Your task to perform on an android device: change keyboard looks Image 0: 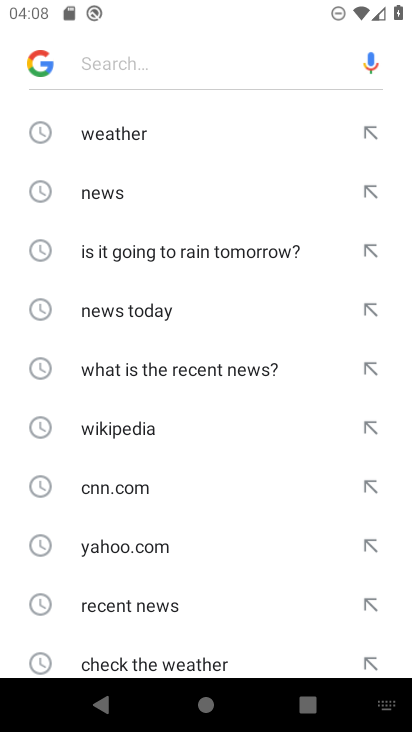
Step 0: press home button
Your task to perform on an android device: change keyboard looks Image 1: 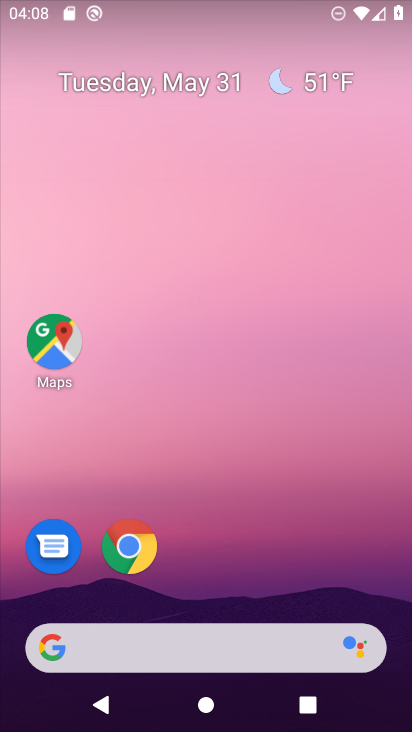
Step 1: drag from (191, 601) to (202, 168)
Your task to perform on an android device: change keyboard looks Image 2: 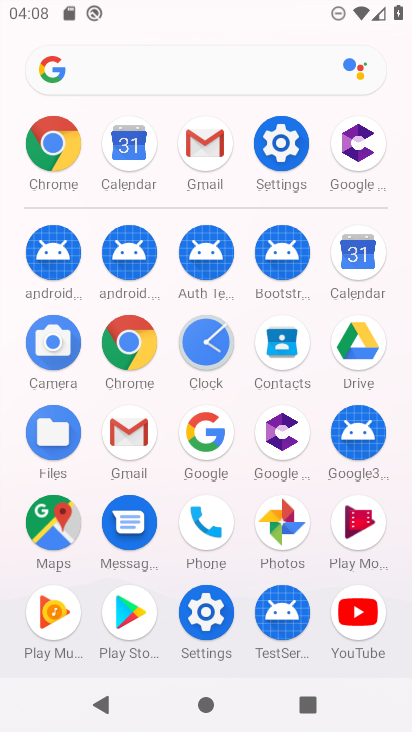
Step 2: click (279, 149)
Your task to perform on an android device: change keyboard looks Image 3: 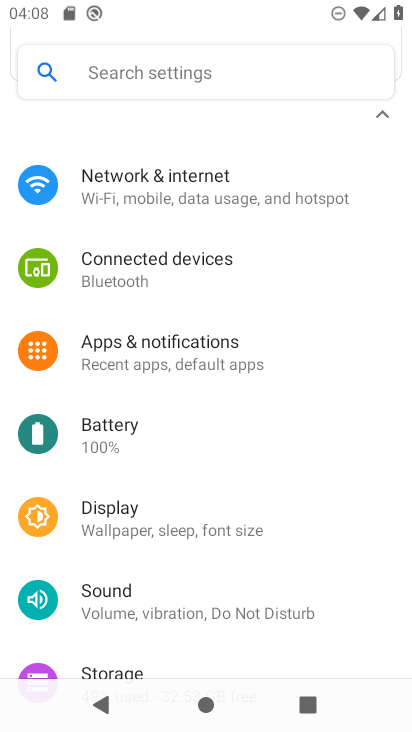
Step 3: drag from (145, 620) to (141, 301)
Your task to perform on an android device: change keyboard looks Image 4: 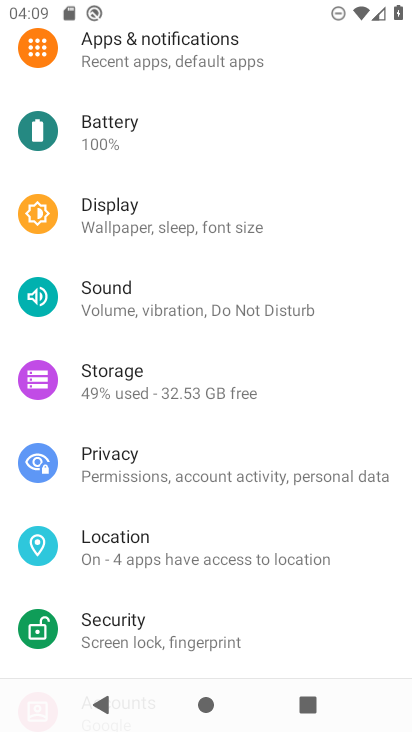
Step 4: drag from (165, 598) to (233, 240)
Your task to perform on an android device: change keyboard looks Image 5: 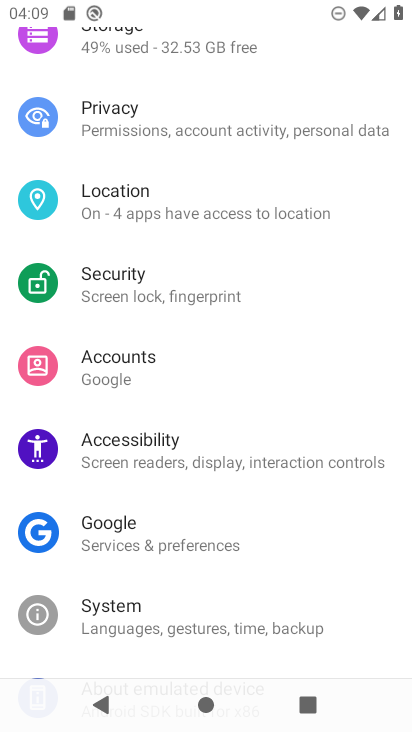
Step 5: click (139, 617)
Your task to perform on an android device: change keyboard looks Image 6: 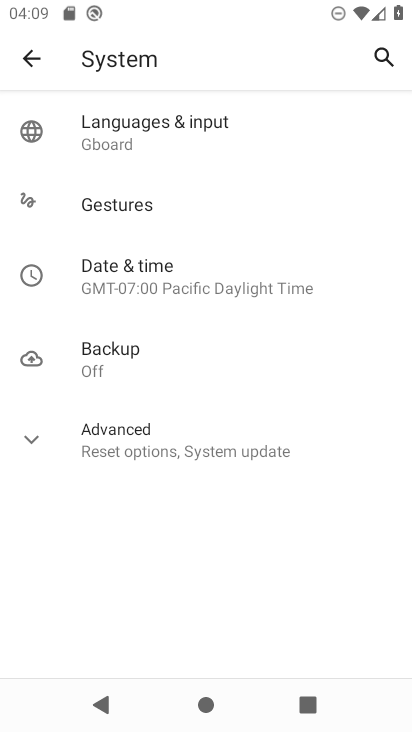
Step 6: click (131, 152)
Your task to perform on an android device: change keyboard looks Image 7: 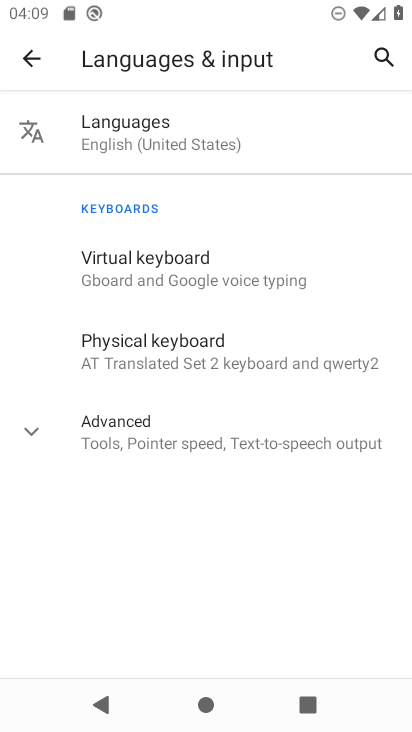
Step 7: click (129, 259)
Your task to perform on an android device: change keyboard looks Image 8: 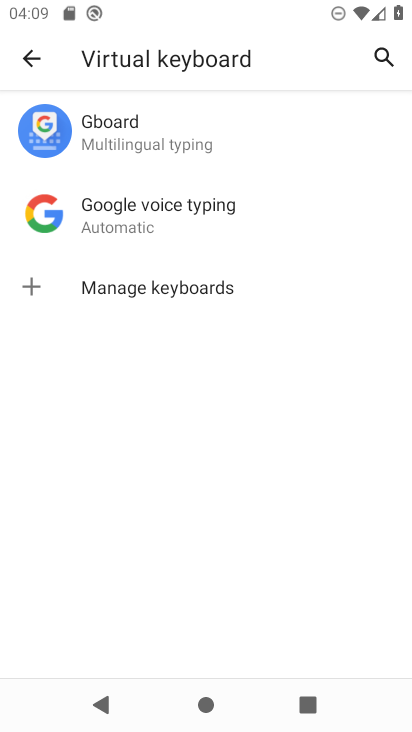
Step 8: click (128, 150)
Your task to perform on an android device: change keyboard looks Image 9: 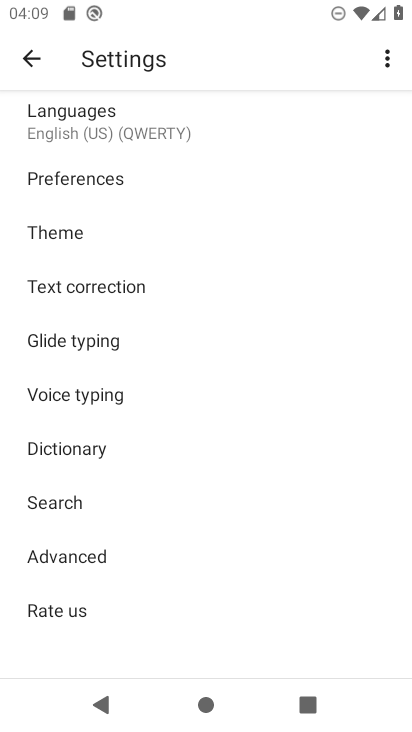
Step 9: click (54, 231)
Your task to perform on an android device: change keyboard looks Image 10: 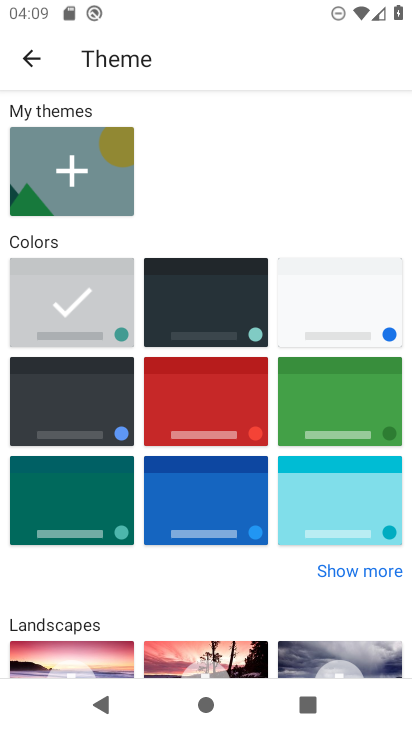
Step 10: click (234, 319)
Your task to perform on an android device: change keyboard looks Image 11: 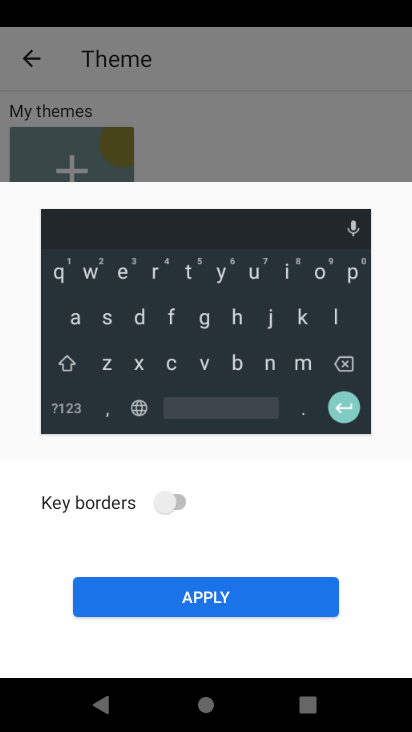
Step 11: click (194, 585)
Your task to perform on an android device: change keyboard looks Image 12: 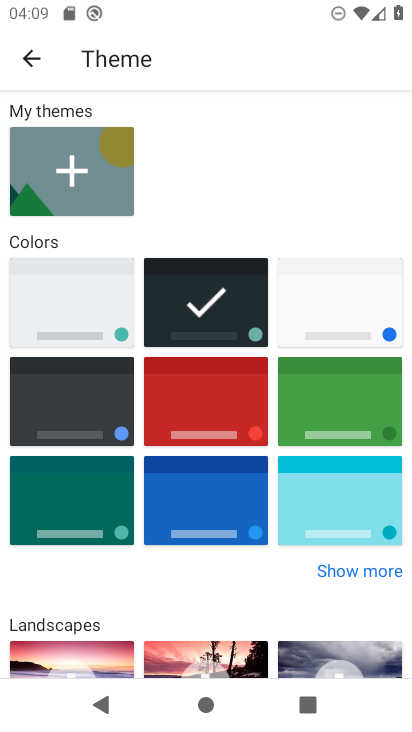
Step 12: task complete